Your task to perform on an android device: Open the phone app and click the voicemail tab. Image 0: 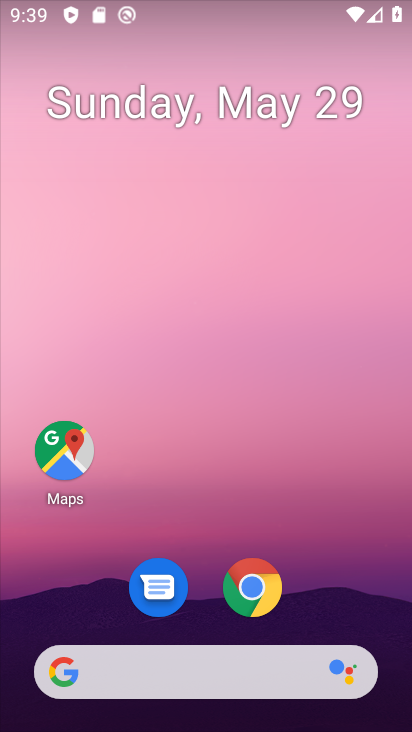
Step 0: drag from (380, 617) to (226, 56)
Your task to perform on an android device: Open the phone app and click the voicemail tab. Image 1: 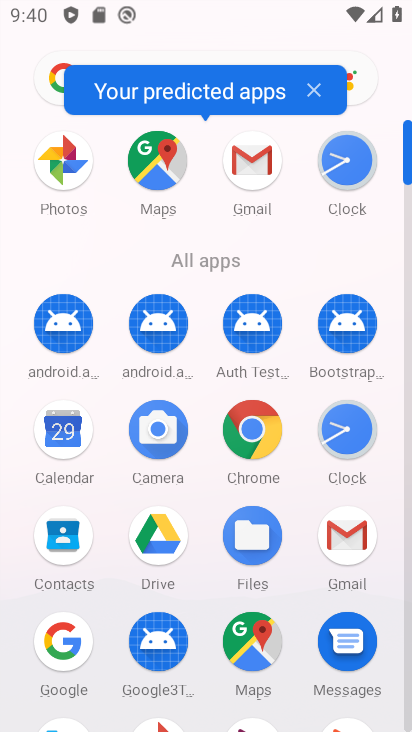
Step 1: click (411, 689)
Your task to perform on an android device: Open the phone app and click the voicemail tab. Image 2: 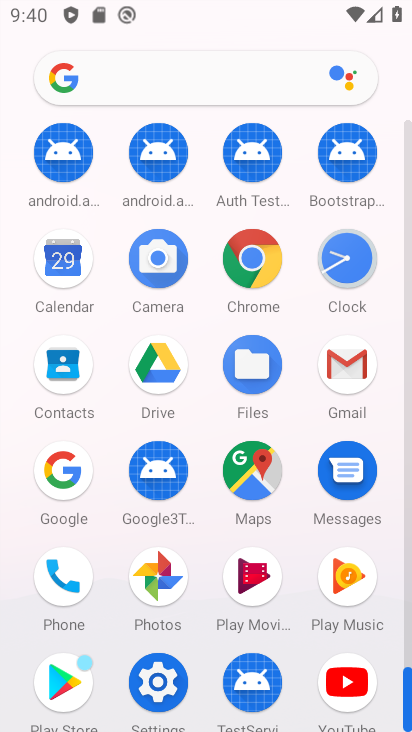
Step 2: click (47, 577)
Your task to perform on an android device: Open the phone app and click the voicemail tab. Image 3: 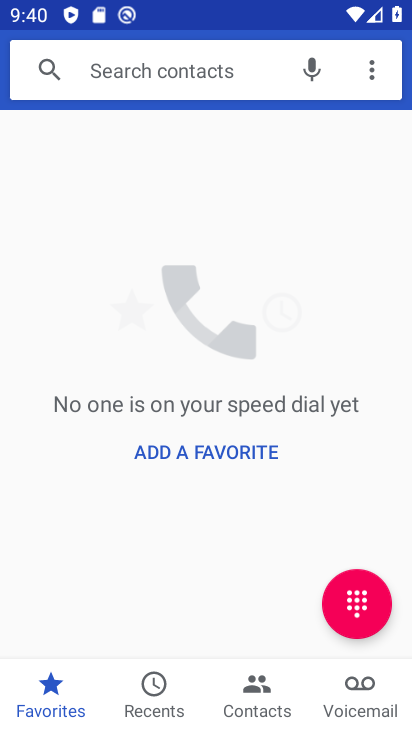
Step 3: click (382, 689)
Your task to perform on an android device: Open the phone app and click the voicemail tab. Image 4: 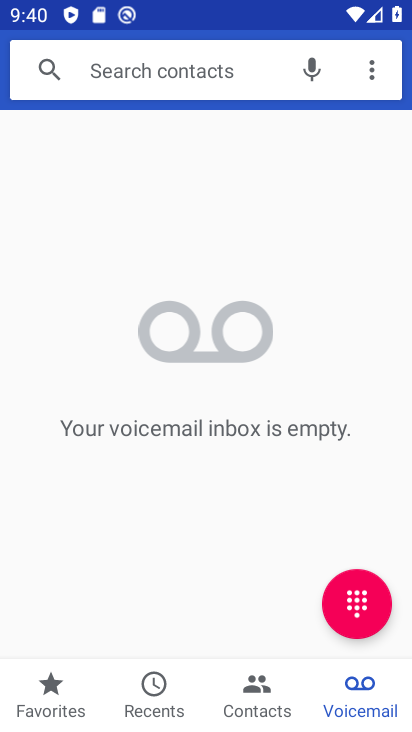
Step 4: task complete